Your task to perform on an android device: turn on data saver in the chrome app Image 0: 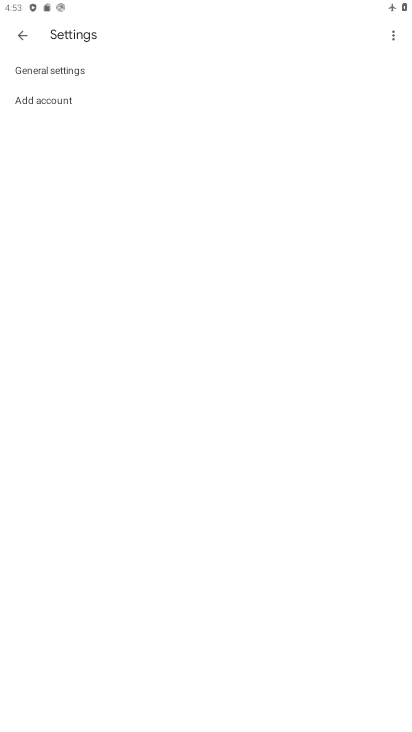
Step 0: press home button
Your task to perform on an android device: turn on data saver in the chrome app Image 1: 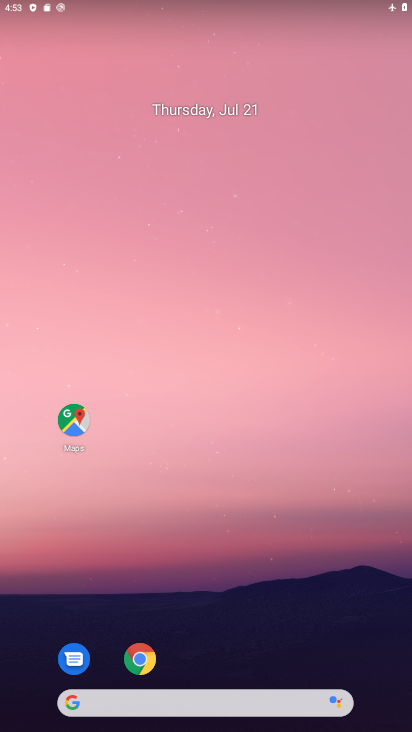
Step 1: click (135, 658)
Your task to perform on an android device: turn on data saver in the chrome app Image 2: 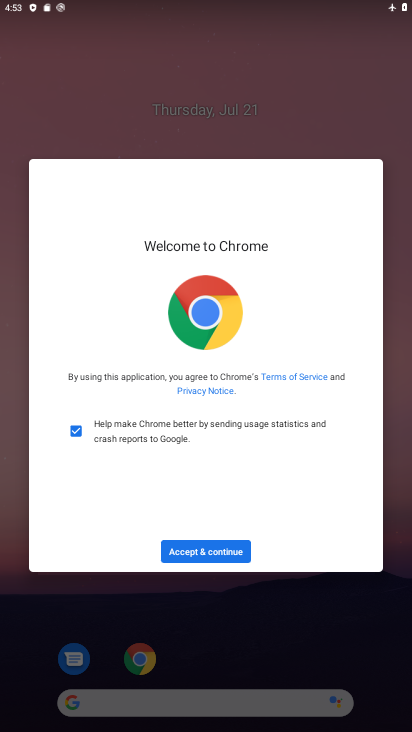
Step 2: click (199, 558)
Your task to perform on an android device: turn on data saver in the chrome app Image 3: 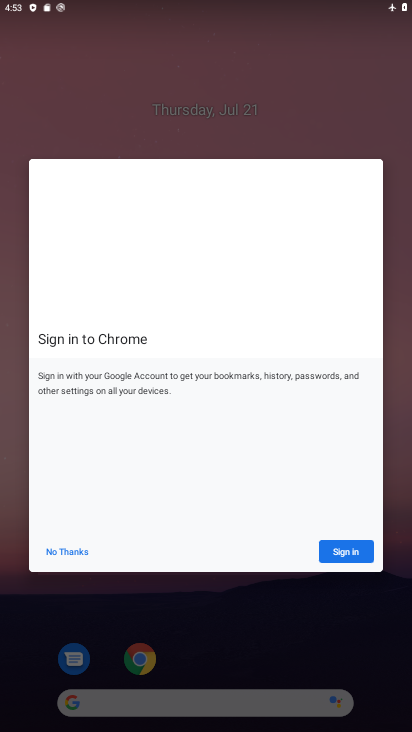
Step 3: click (75, 552)
Your task to perform on an android device: turn on data saver in the chrome app Image 4: 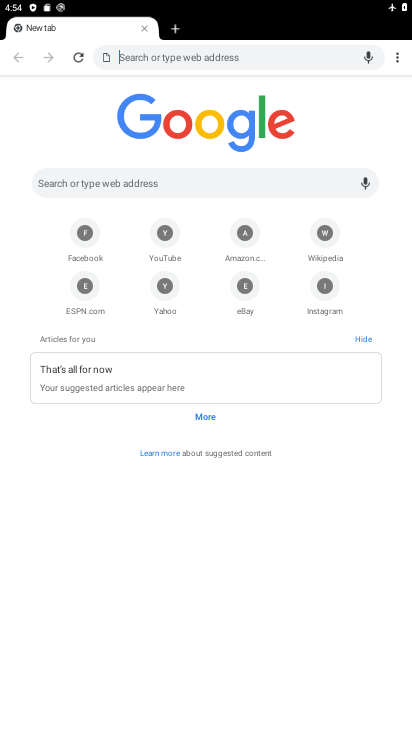
Step 4: click (397, 62)
Your task to perform on an android device: turn on data saver in the chrome app Image 5: 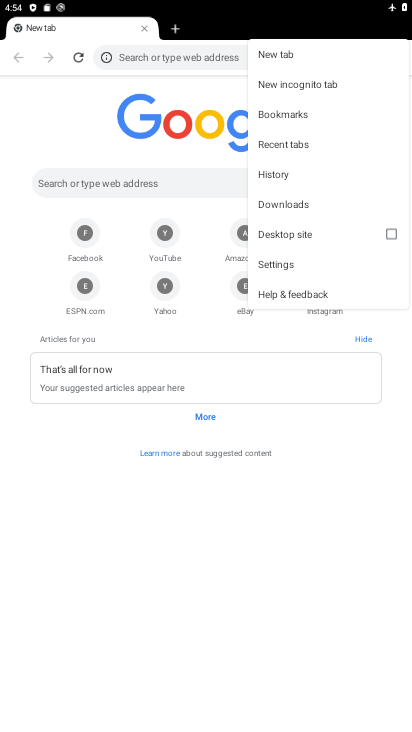
Step 5: click (284, 269)
Your task to perform on an android device: turn on data saver in the chrome app Image 6: 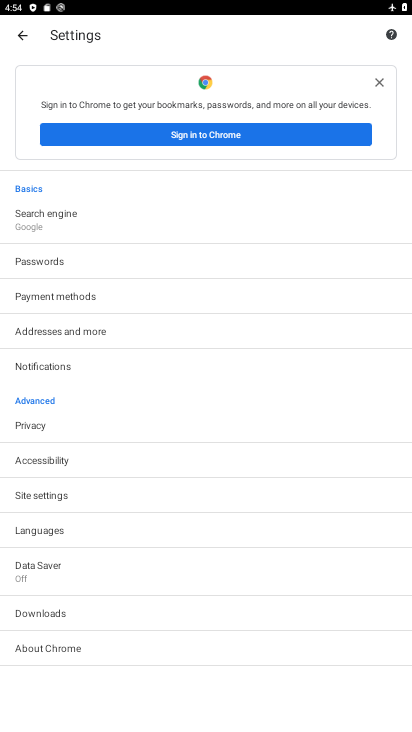
Step 6: click (41, 572)
Your task to perform on an android device: turn on data saver in the chrome app Image 7: 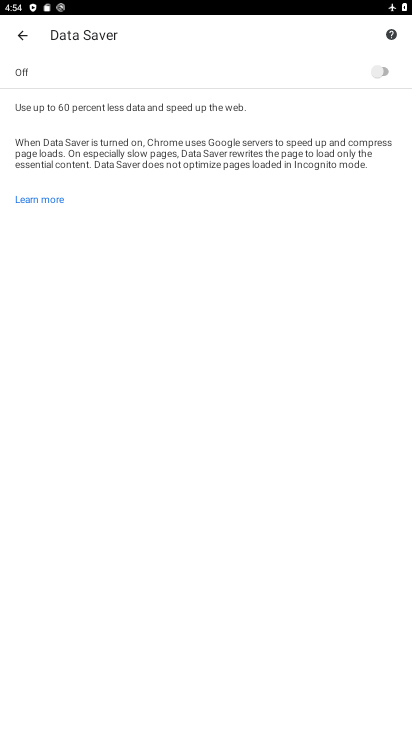
Step 7: click (390, 70)
Your task to perform on an android device: turn on data saver in the chrome app Image 8: 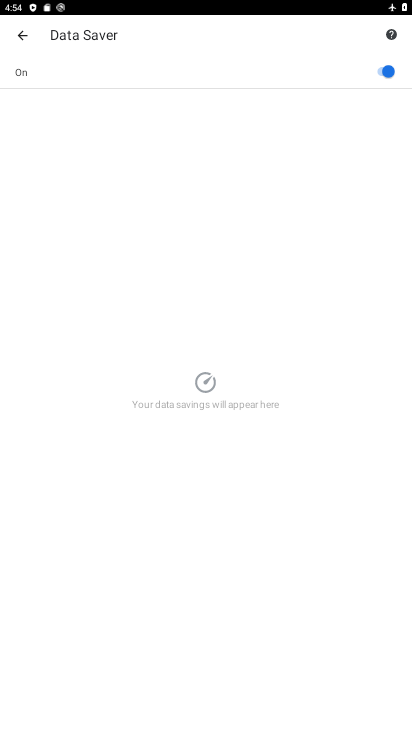
Step 8: task complete